Your task to perform on an android device: Open Youtube and go to the subscriptions tab Image 0: 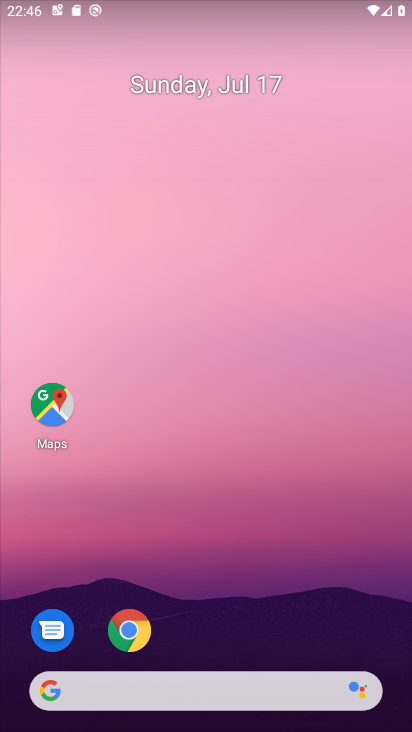
Step 0: drag from (191, 618) to (204, 134)
Your task to perform on an android device: Open Youtube and go to the subscriptions tab Image 1: 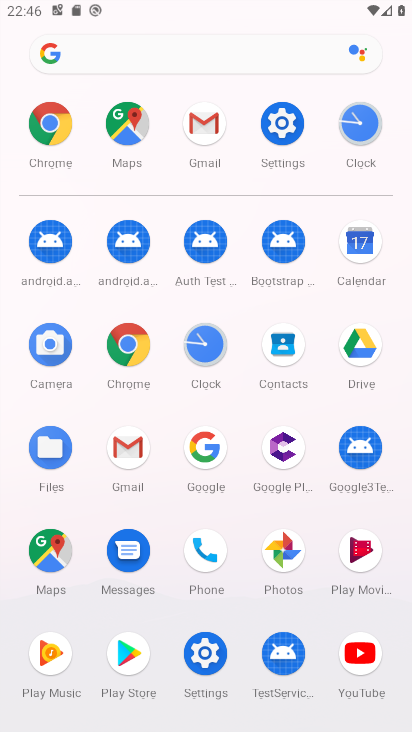
Step 1: click (364, 671)
Your task to perform on an android device: Open Youtube and go to the subscriptions tab Image 2: 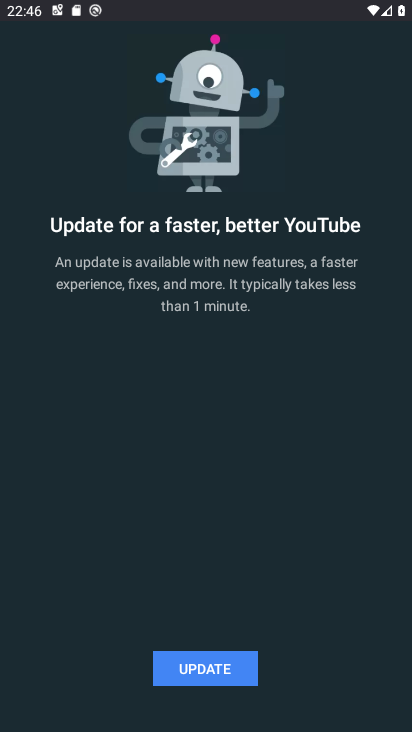
Step 2: click (231, 671)
Your task to perform on an android device: Open Youtube and go to the subscriptions tab Image 3: 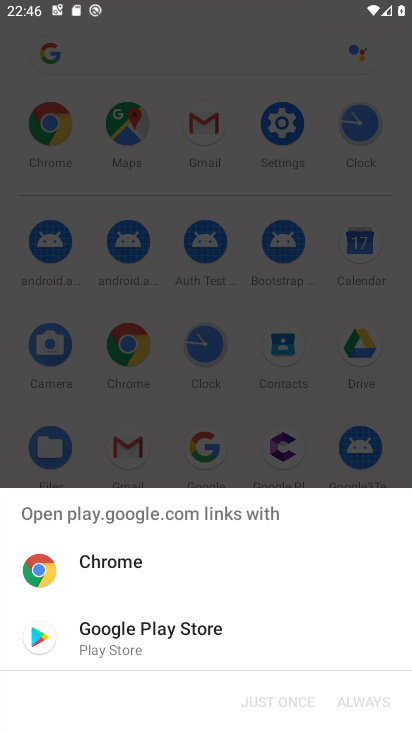
Step 3: click (209, 642)
Your task to perform on an android device: Open Youtube and go to the subscriptions tab Image 4: 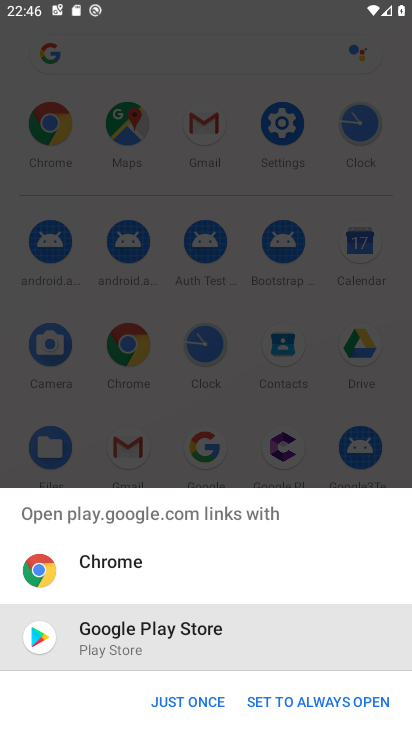
Step 4: click (194, 706)
Your task to perform on an android device: Open Youtube and go to the subscriptions tab Image 5: 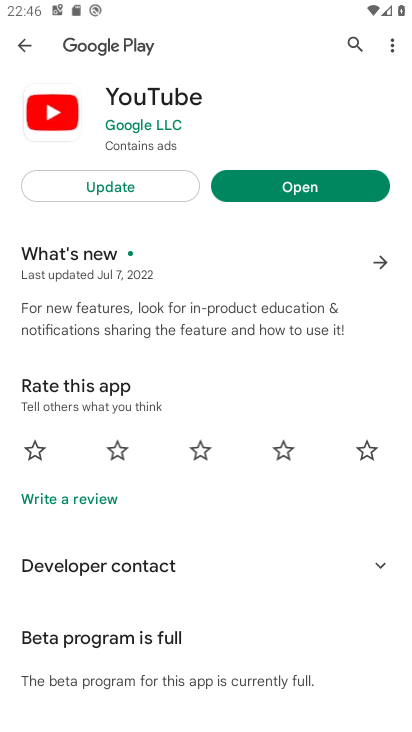
Step 5: click (151, 187)
Your task to perform on an android device: Open Youtube and go to the subscriptions tab Image 6: 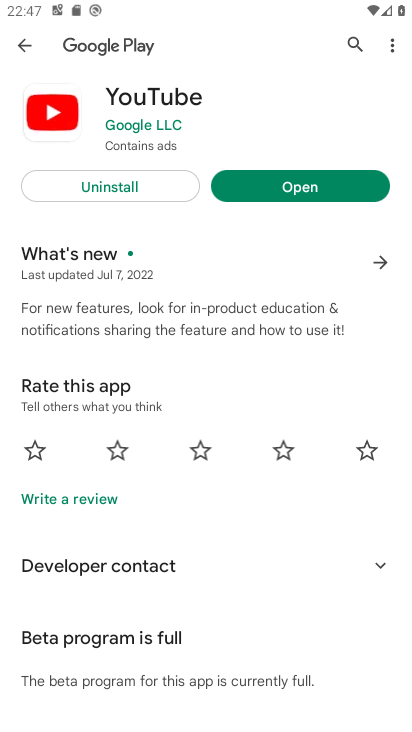
Step 6: click (323, 194)
Your task to perform on an android device: Open Youtube and go to the subscriptions tab Image 7: 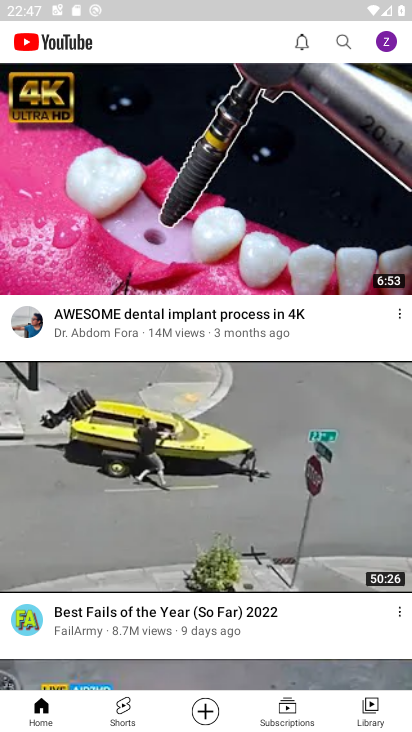
Step 7: click (293, 714)
Your task to perform on an android device: Open Youtube and go to the subscriptions tab Image 8: 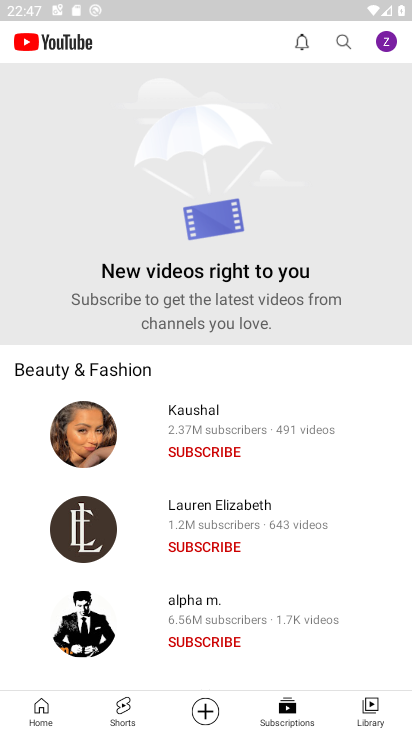
Step 8: task complete